Your task to perform on an android device: move an email to a new category in the gmail app Image 0: 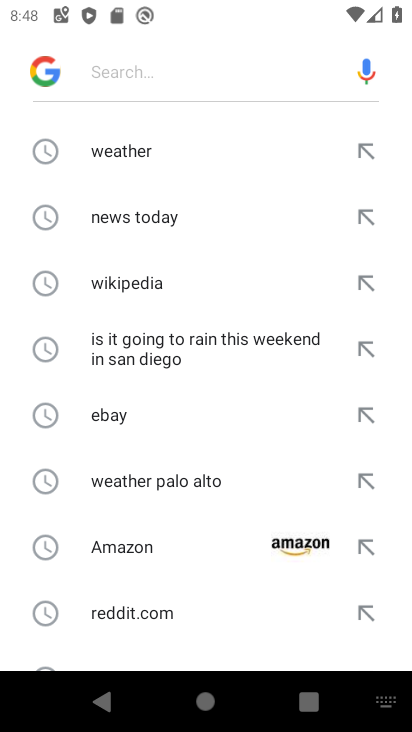
Step 0: press home button
Your task to perform on an android device: move an email to a new category in the gmail app Image 1: 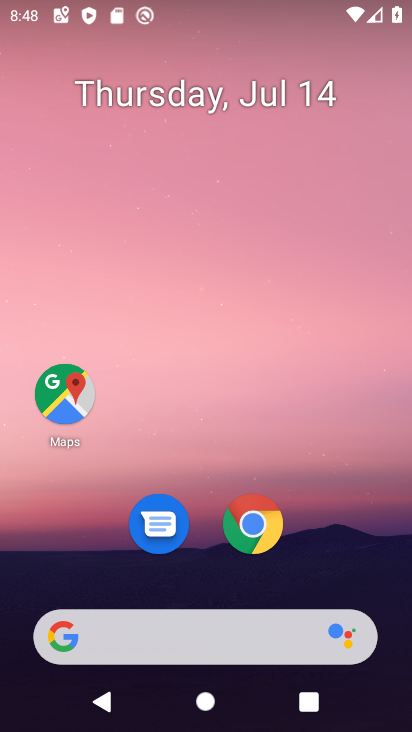
Step 1: drag from (320, 496) to (373, 300)
Your task to perform on an android device: move an email to a new category in the gmail app Image 2: 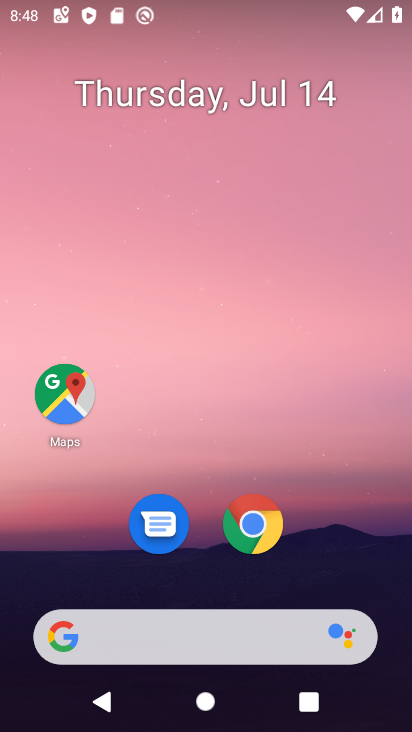
Step 2: drag from (349, 506) to (328, 20)
Your task to perform on an android device: move an email to a new category in the gmail app Image 3: 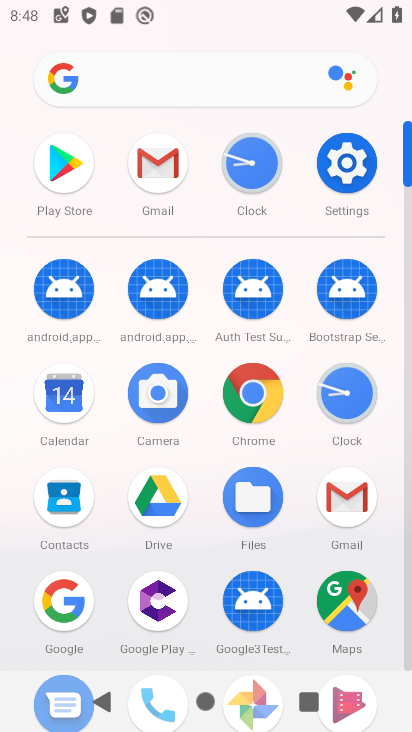
Step 3: click (158, 168)
Your task to perform on an android device: move an email to a new category in the gmail app Image 4: 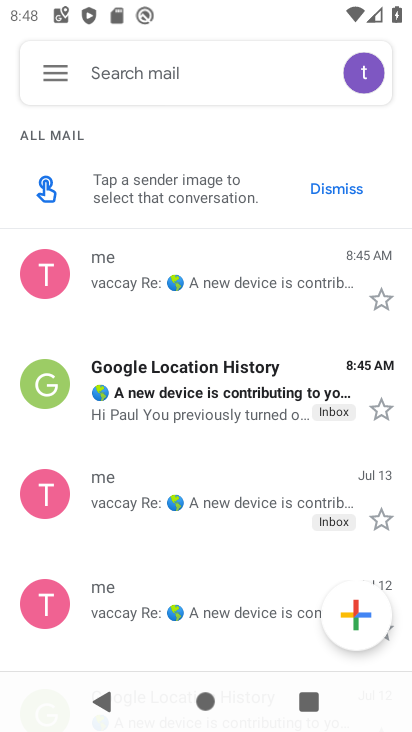
Step 4: click (187, 268)
Your task to perform on an android device: move an email to a new category in the gmail app Image 5: 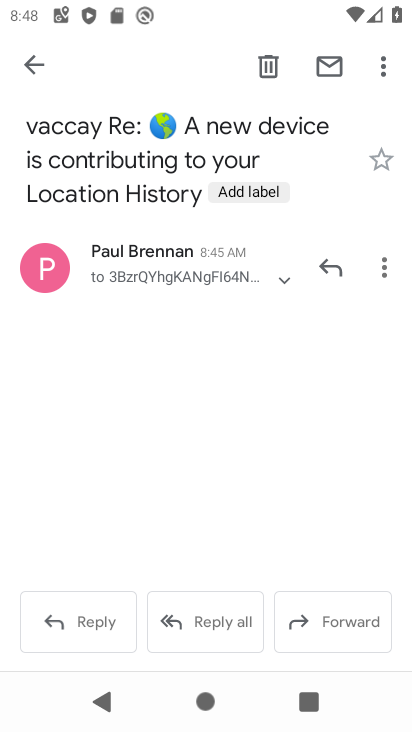
Step 5: click (377, 75)
Your task to perform on an android device: move an email to a new category in the gmail app Image 6: 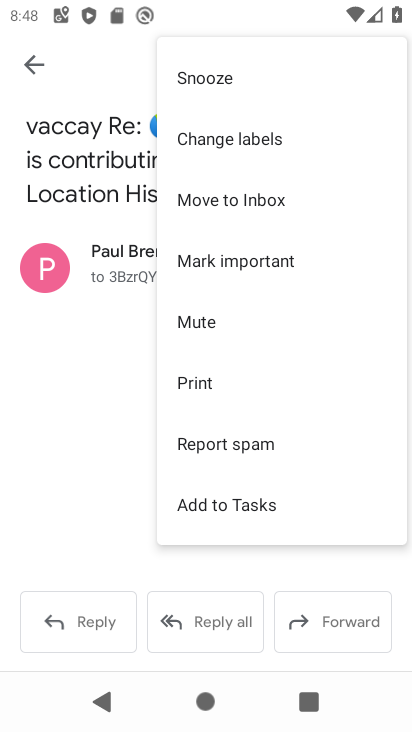
Step 6: click (278, 263)
Your task to perform on an android device: move an email to a new category in the gmail app Image 7: 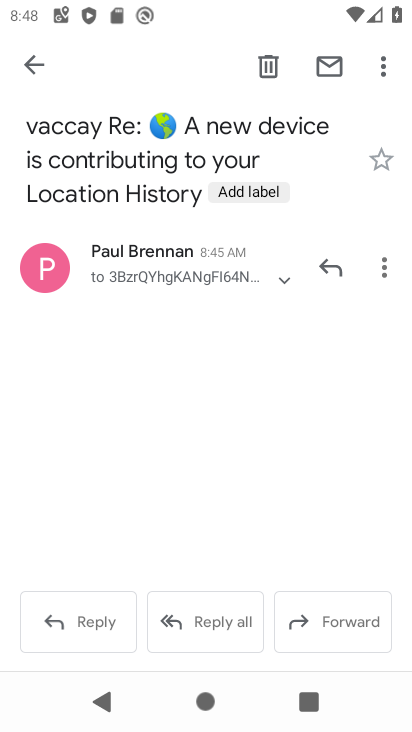
Step 7: task complete